Your task to perform on an android device: set the timer Image 0: 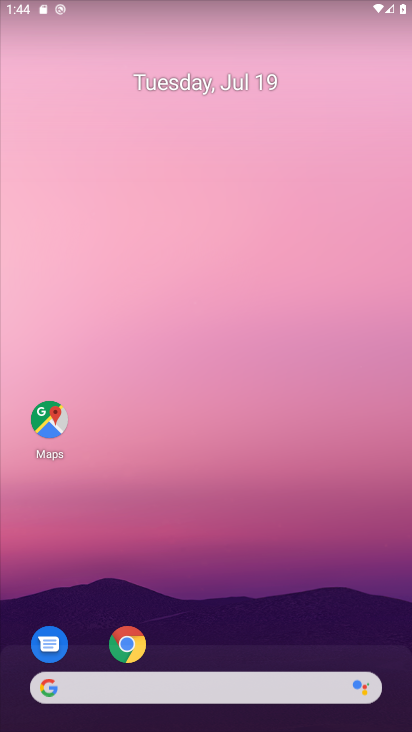
Step 0: drag from (201, 217) to (200, 147)
Your task to perform on an android device: set the timer Image 1: 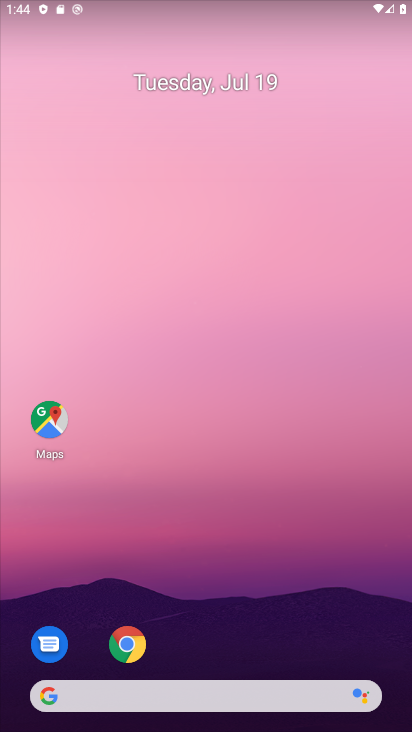
Step 1: drag from (201, 683) to (225, 198)
Your task to perform on an android device: set the timer Image 2: 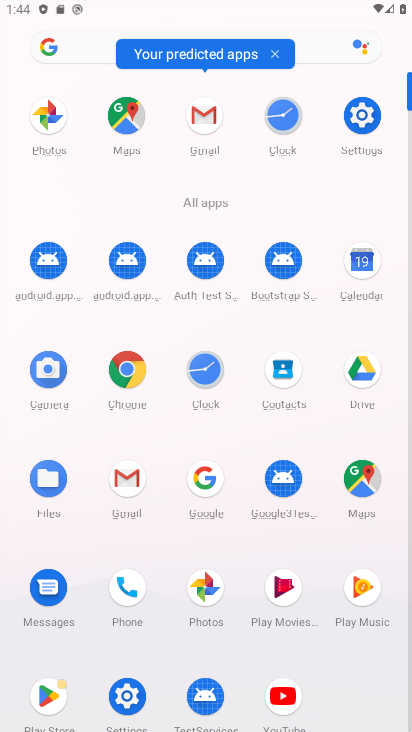
Step 2: click (210, 353)
Your task to perform on an android device: set the timer Image 3: 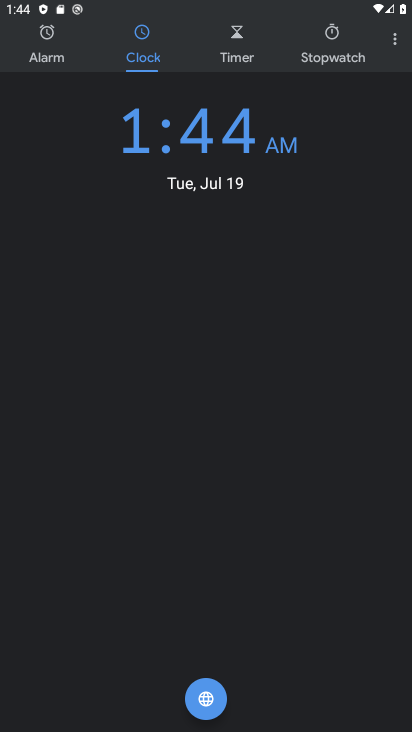
Step 3: click (241, 44)
Your task to perform on an android device: set the timer Image 4: 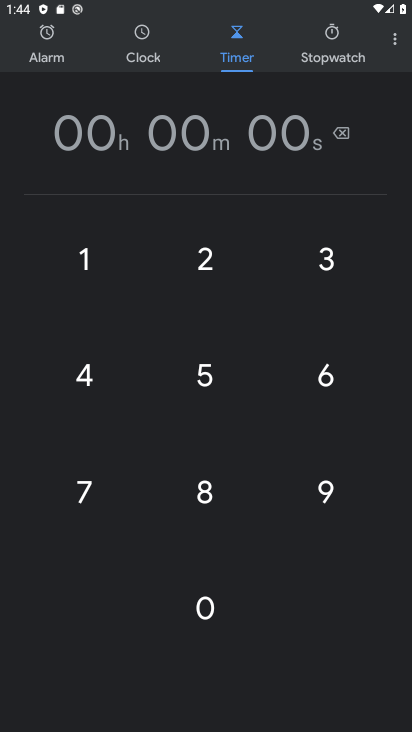
Step 4: drag from (224, 261) to (311, 253)
Your task to perform on an android device: set the timer Image 5: 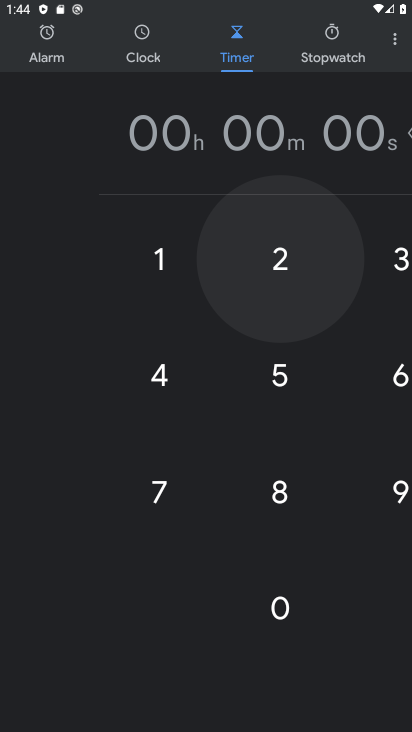
Step 5: click (213, 253)
Your task to perform on an android device: set the timer Image 6: 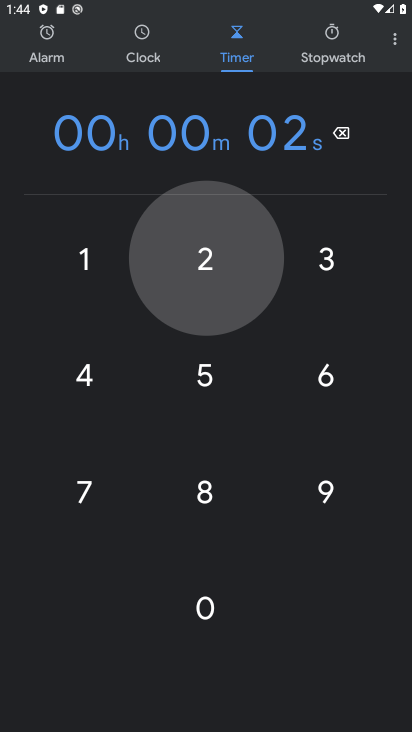
Step 6: click (302, 249)
Your task to perform on an android device: set the timer Image 7: 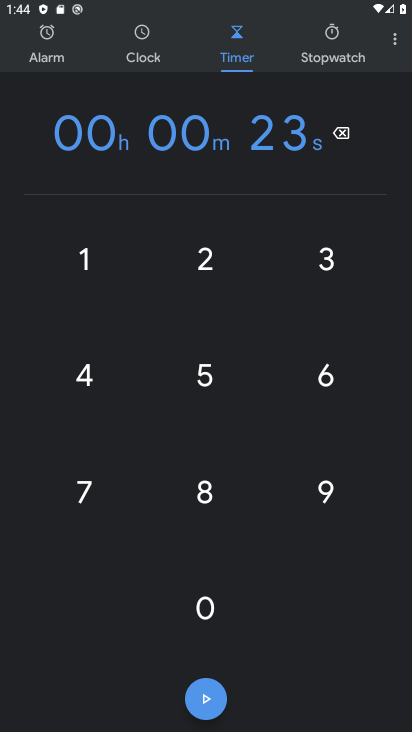
Step 7: click (224, 251)
Your task to perform on an android device: set the timer Image 8: 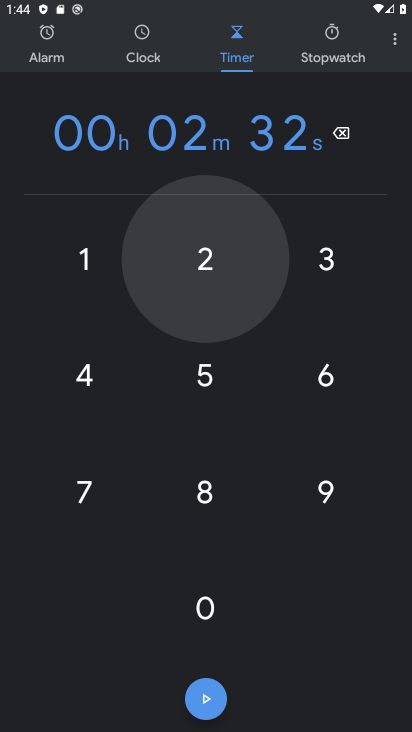
Step 8: click (317, 258)
Your task to perform on an android device: set the timer Image 9: 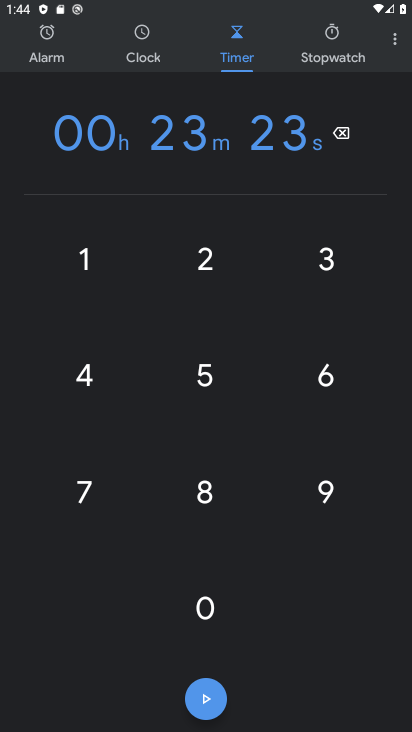
Step 9: click (217, 693)
Your task to perform on an android device: set the timer Image 10: 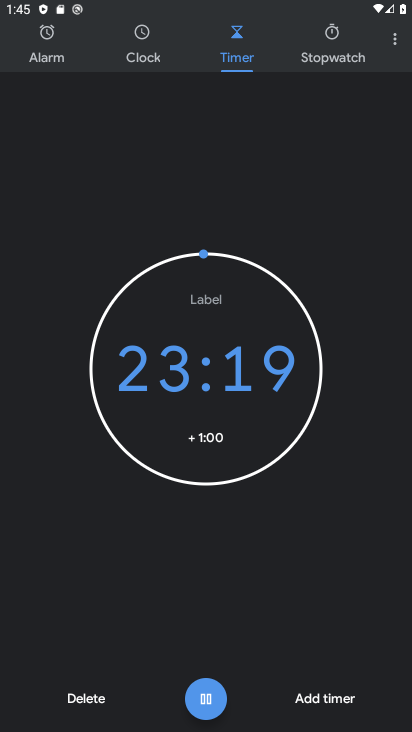
Step 10: task complete